Your task to perform on an android device: turn off smart reply in the gmail app Image 0: 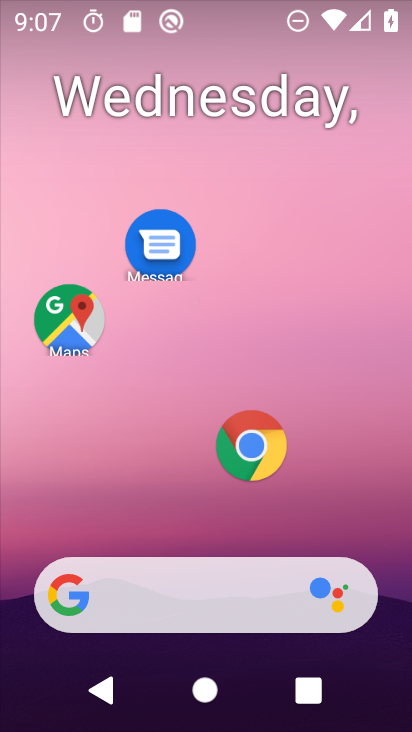
Step 0: drag from (191, 527) to (224, 7)
Your task to perform on an android device: turn off smart reply in the gmail app Image 1: 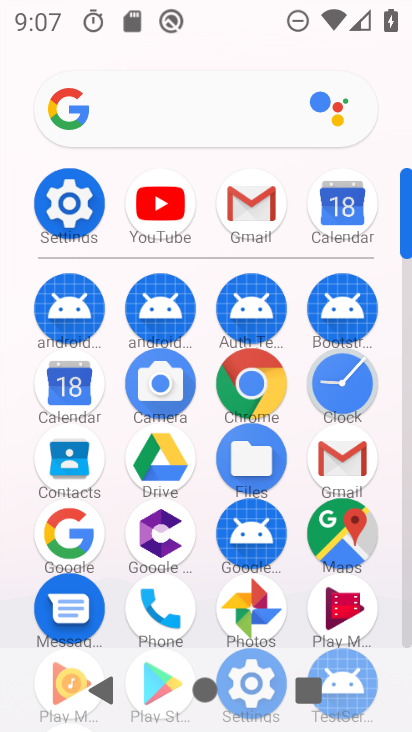
Step 1: click (251, 190)
Your task to perform on an android device: turn off smart reply in the gmail app Image 2: 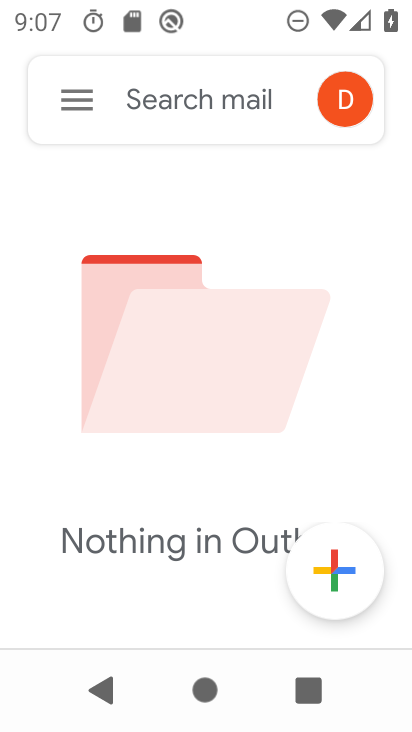
Step 2: click (78, 96)
Your task to perform on an android device: turn off smart reply in the gmail app Image 3: 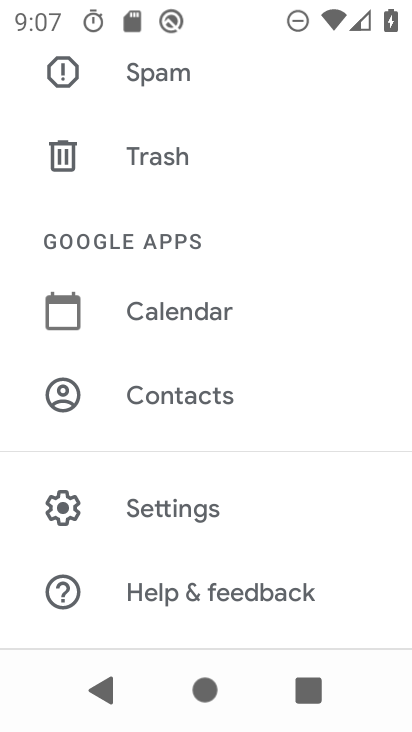
Step 3: click (100, 507)
Your task to perform on an android device: turn off smart reply in the gmail app Image 4: 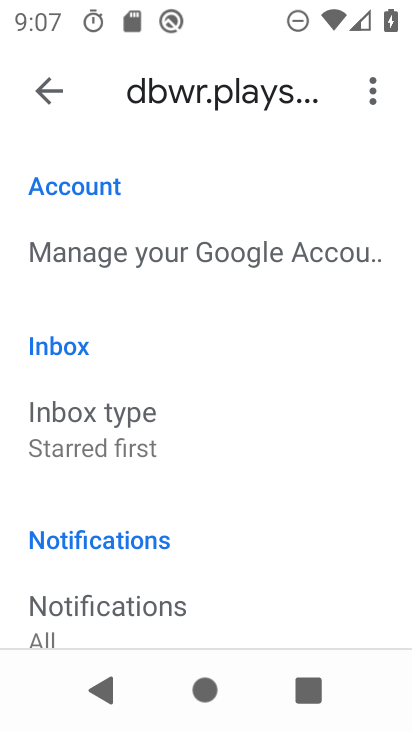
Step 4: task complete